Your task to perform on an android device: check battery use Image 0: 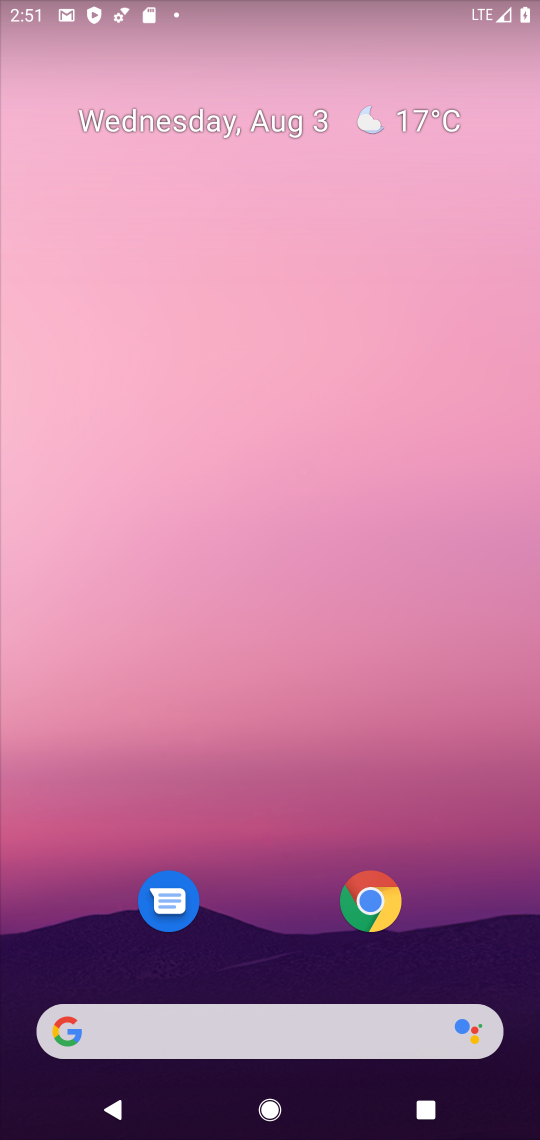
Step 0: drag from (243, 623) to (245, 233)
Your task to perform on an android device: check battery use Image 1: 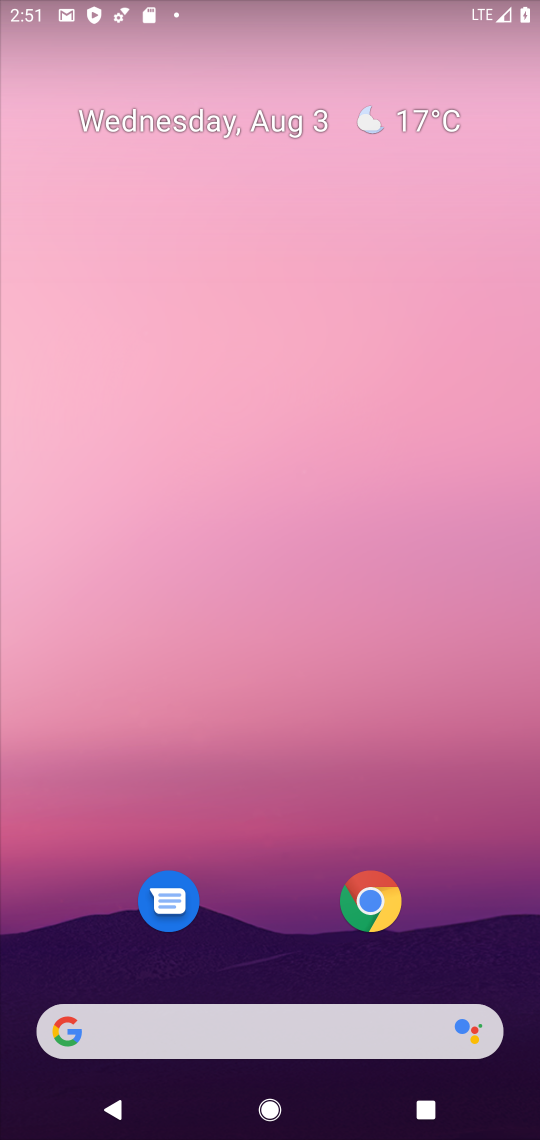
Step 1: drag from (277, 920) to (279, 153)
Your task to perform on an android device: check battery use Image 2: 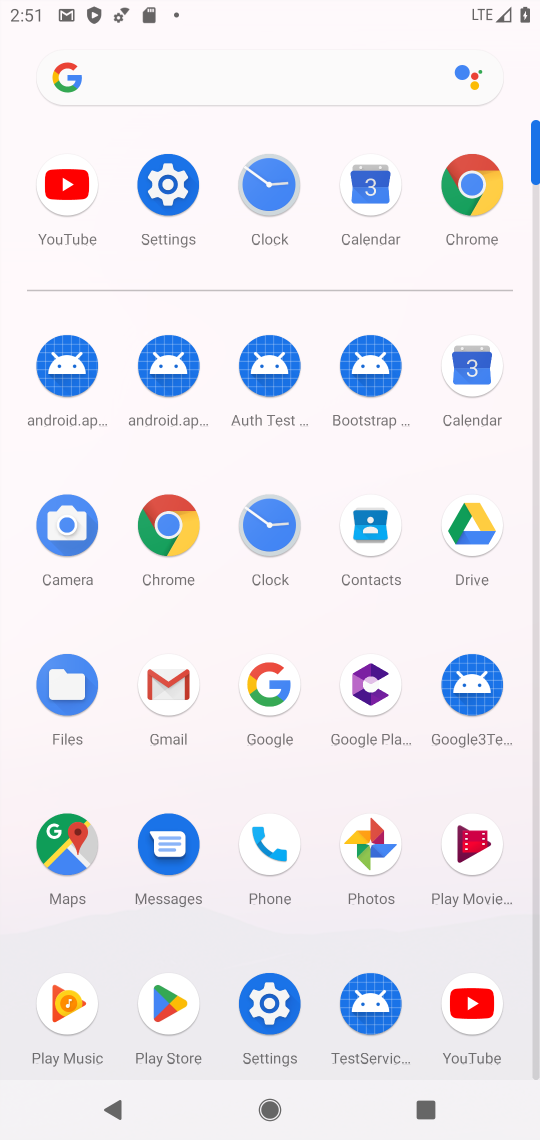
Step 2: click (167, 170)
Your task to perform on an android device: check battery use Image 3: 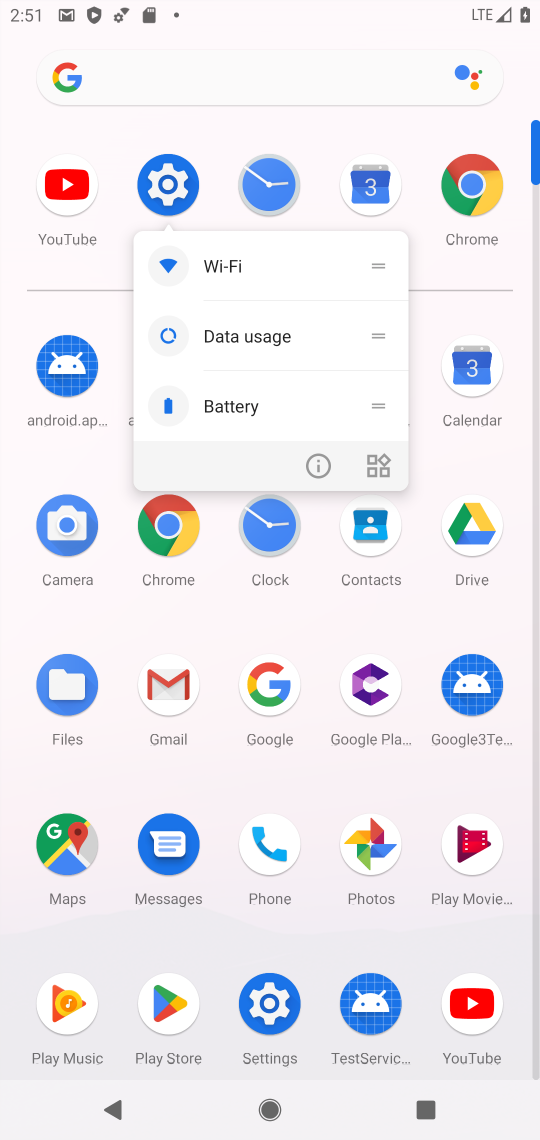
Step 3: click (170, 159)
Your task to perform on an android device: check battery use Image 4: 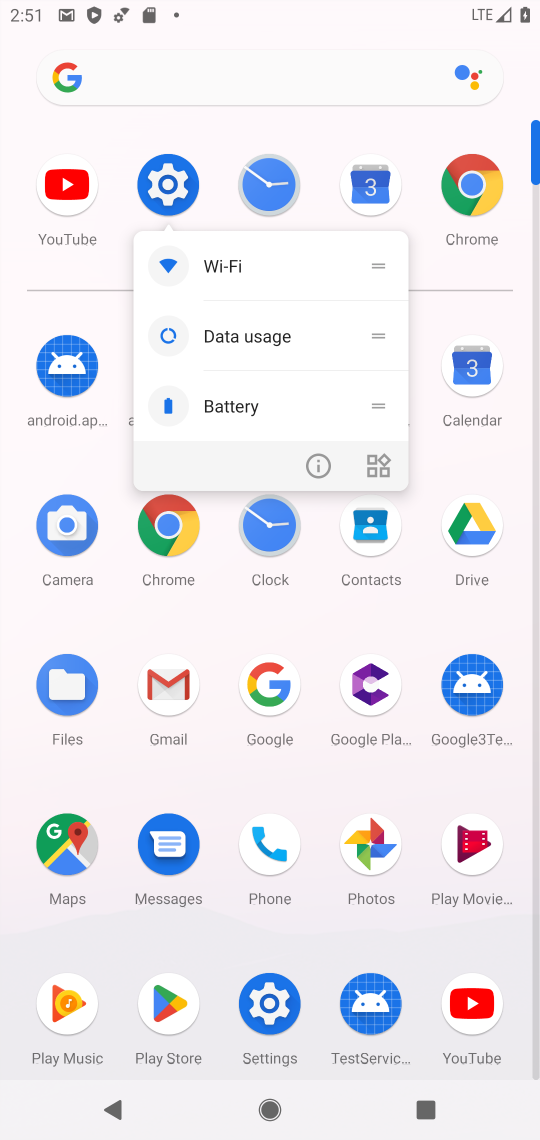
Step 4: click (170, 159)
Your task to perform on an android device: check battery use Image 5: 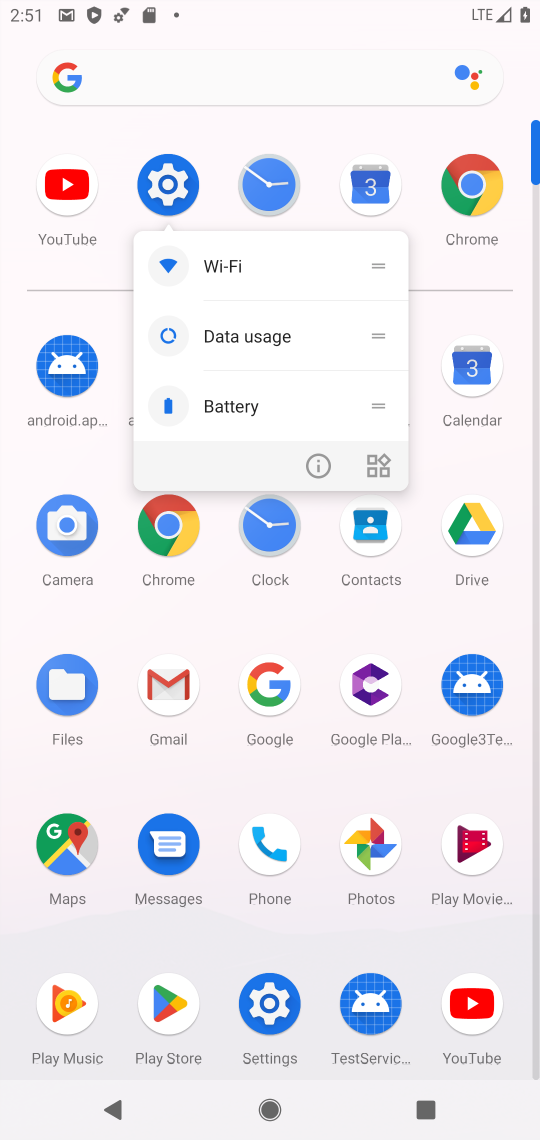
Step 5: click (170, 192)
Your task to perform on an android device: check battery use Image 6: 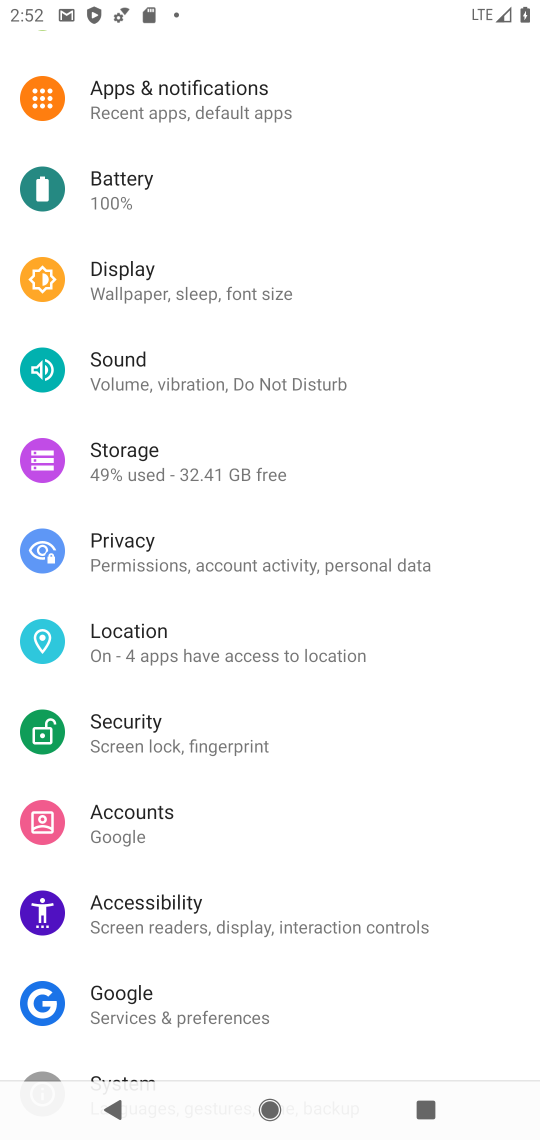
Step 6: drag from (191, 227) to (210, 440)
Your task to perform on an android device: check battery use Image 7: 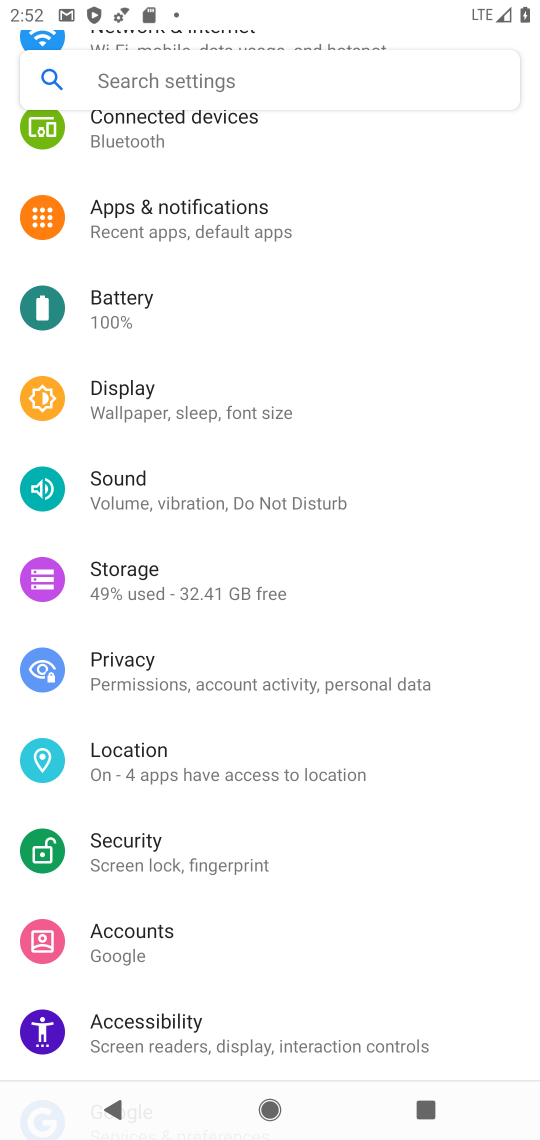
Step 7: click (141, 303)
Your task to perform on an android device: check battery use Image 8: 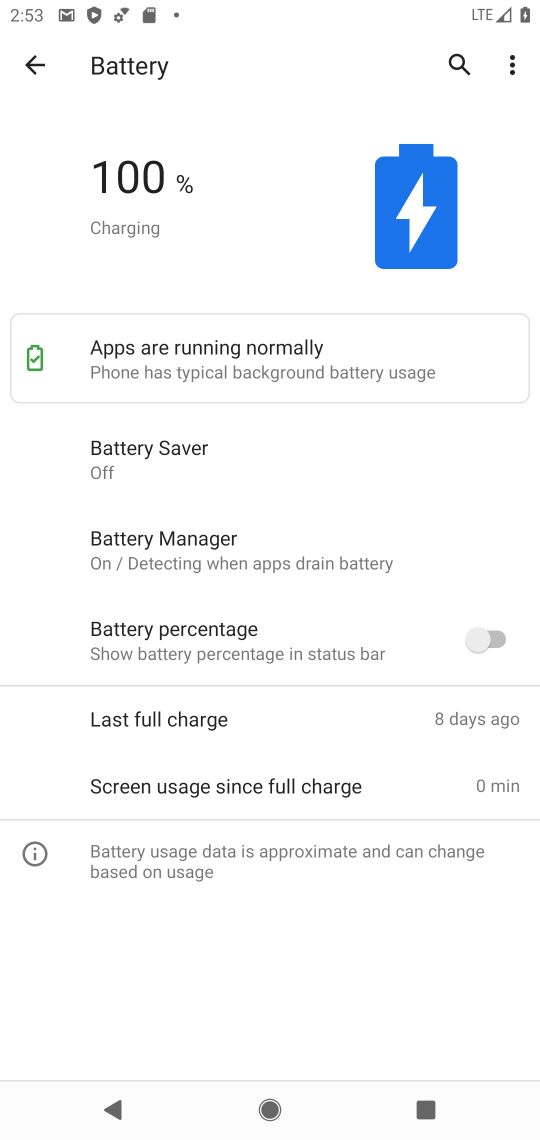
Step 8: task complete